Your task to perform on an android device: Go to location settings Image 0: 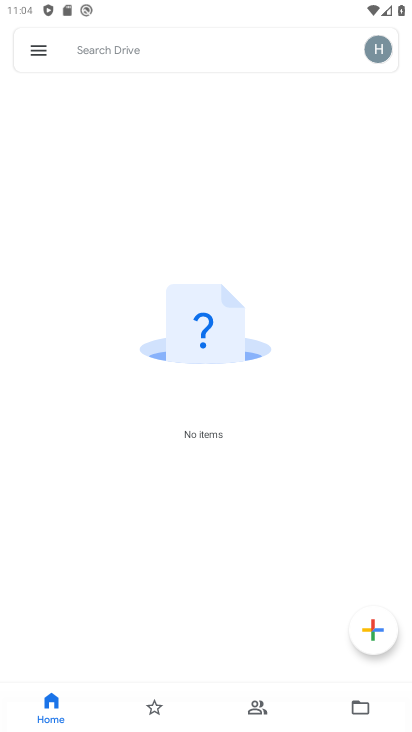
Step 0: press home button
Your task to perform on an android device: Go to location settings Image 1: 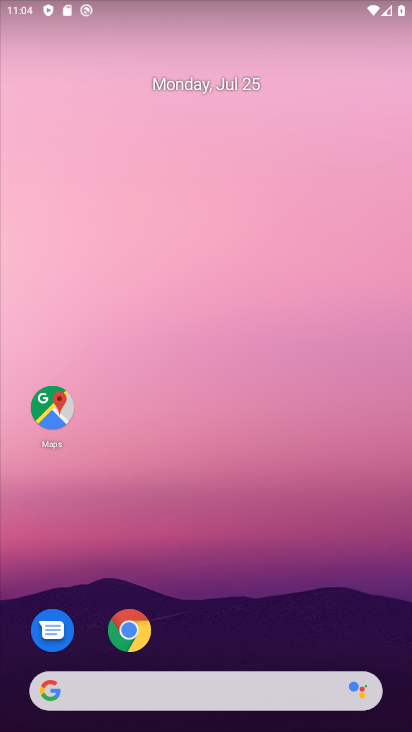
Step 1: drag from (245, 620) to (358, 0)
Your task to perform on an android device: Go to location settings Image 2: 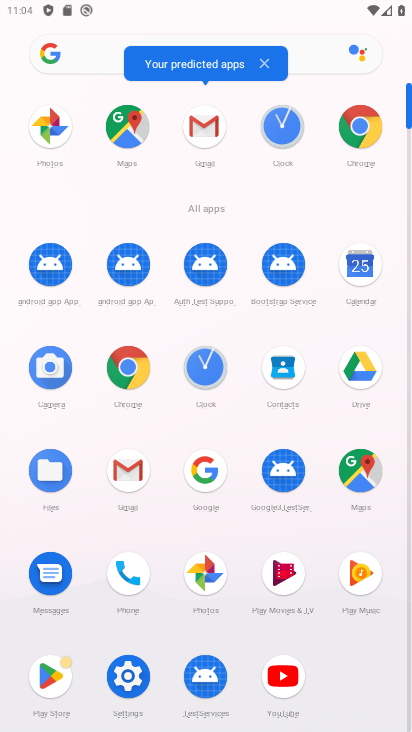
Step 2: click (133, 679)
Your task to perform on an android device: Go to location settings Image 3: 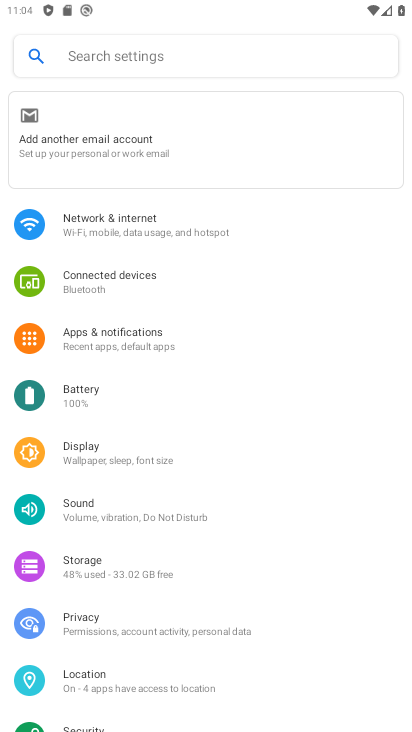
Step 3: click (77, 669)
Your task to perform on an android device: Go to location settings Image 4: 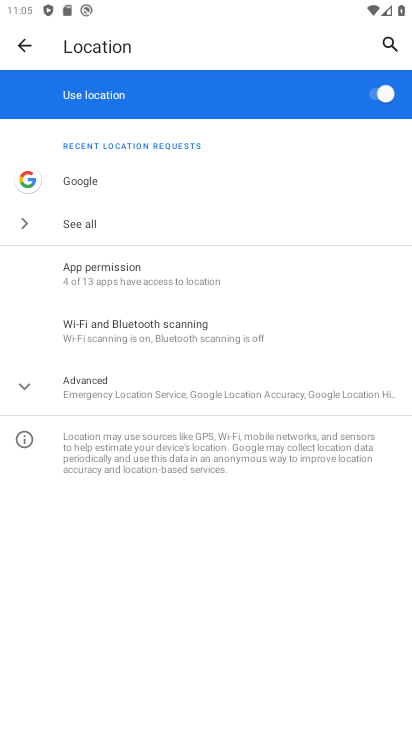
Step 4: task complete